Your task to perform on an android device: star an email in the gmail app Image 0: 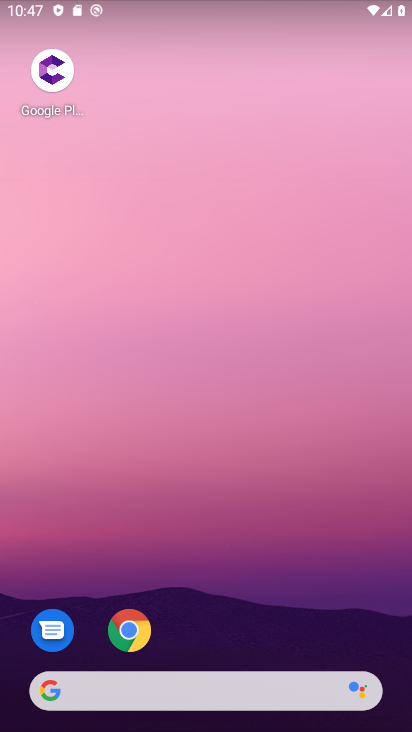
Step 0: drag from (39, 672) to (348, 91)
Your task to perform on an android device: star an email in the gmail app Image 1: 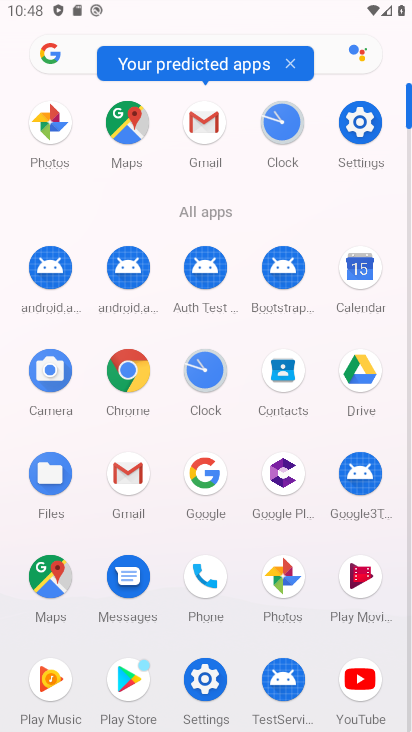
Step 1: click (119, 478)
Your task to perform on an android device: star an email in the gmail app Image 2: 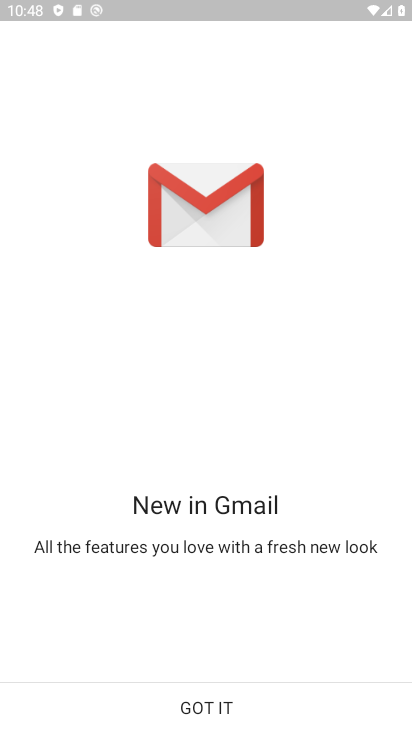
Step 2: click (158, 685)
Your task to perform on an android device: star an email in the gmail app Image 3: 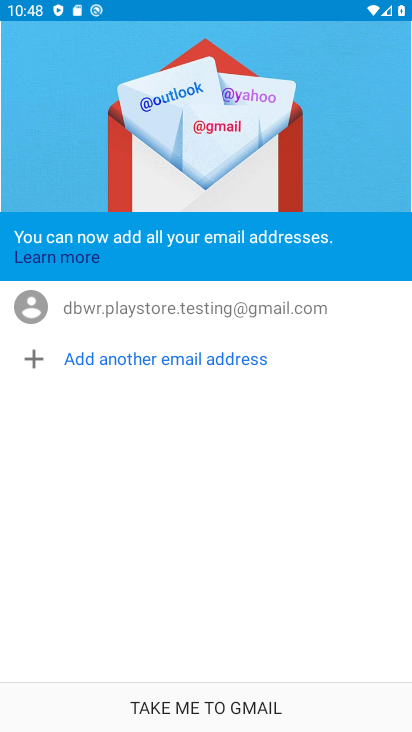
Step 3: click (159, 702)
Your task to perform on an android device: star an email in the gmail app Image 4: 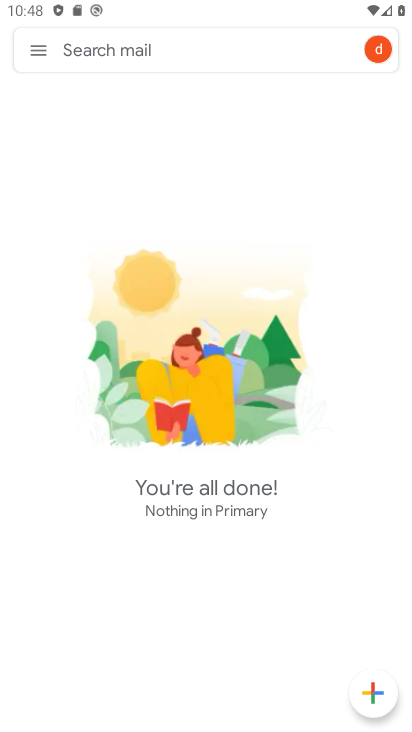
Step 4: click (41, 51)
Your task to perform on an android device: star an email in the gmail app Image 5: 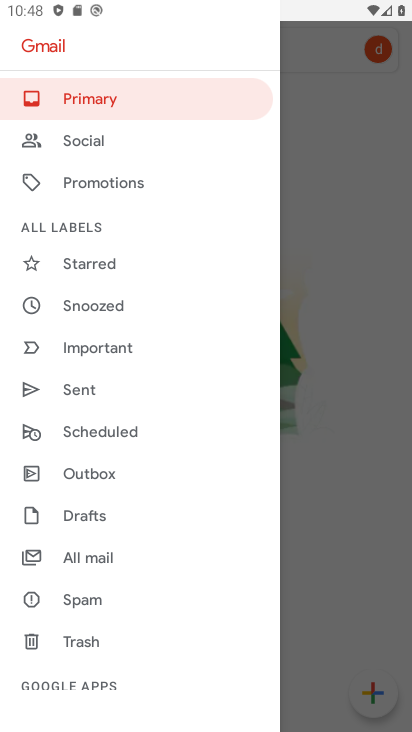
Step 5: click (112, 552)
Your task to perform on an android device: star an email in the gmail app Image 6: 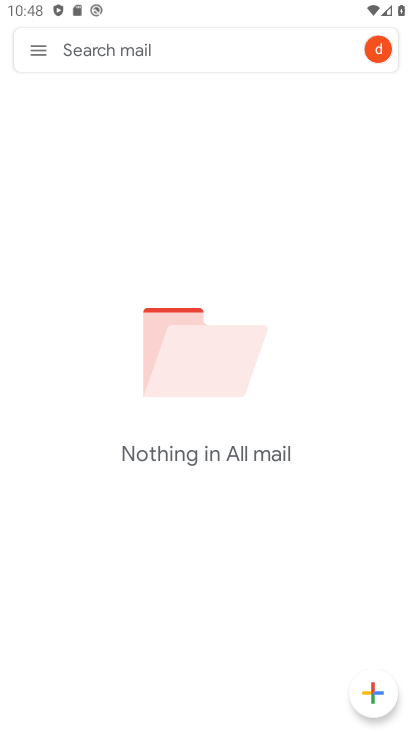
Step 6: task complete